Your task to perform on an android device: turn on javascript in the chrome app Image 0: 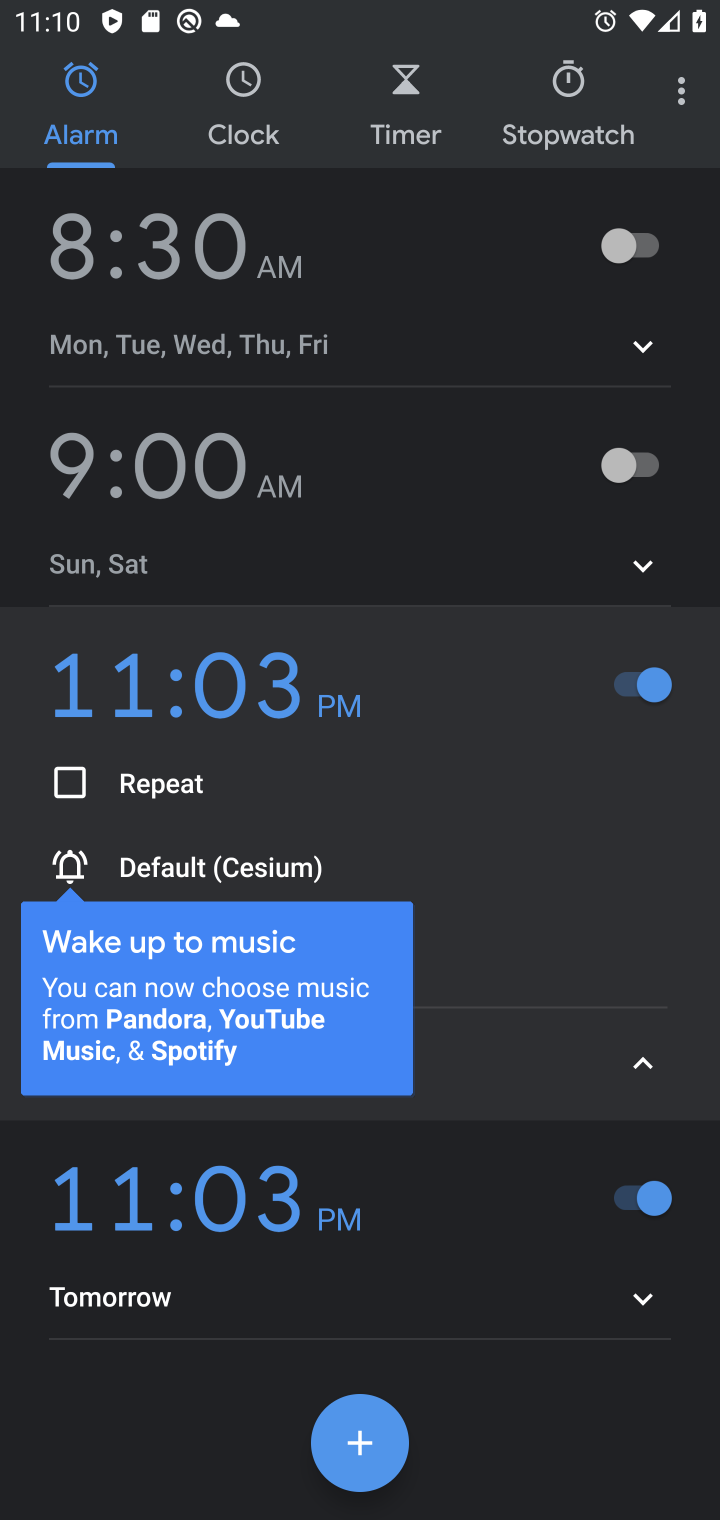
Step 0: press home button
Your task to perform on an android device: turn on javascript in the chrome app Image 1: 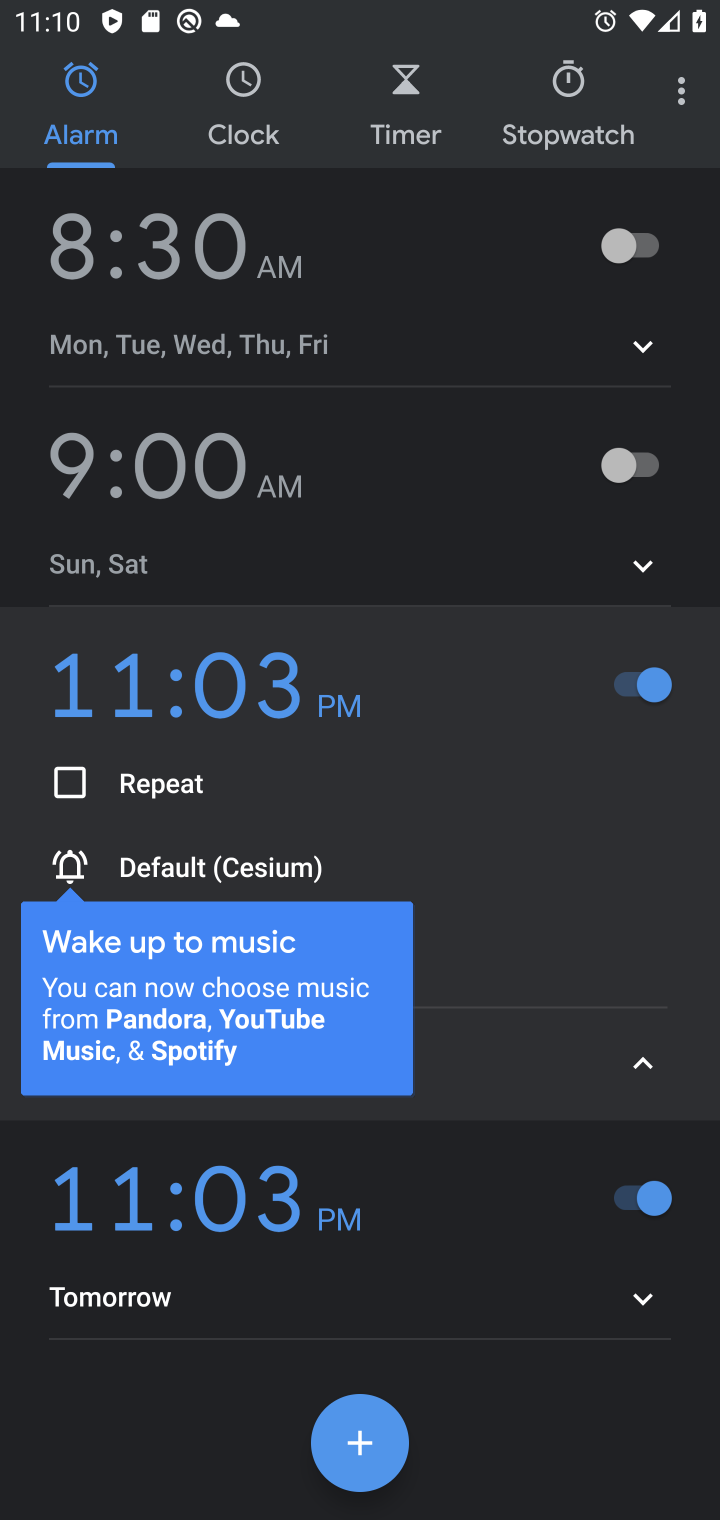
Step 1: drag from (402, 1167) to (112, 225)
Your task to perform on an android device: turn on javascript in the chrome app Image 2: 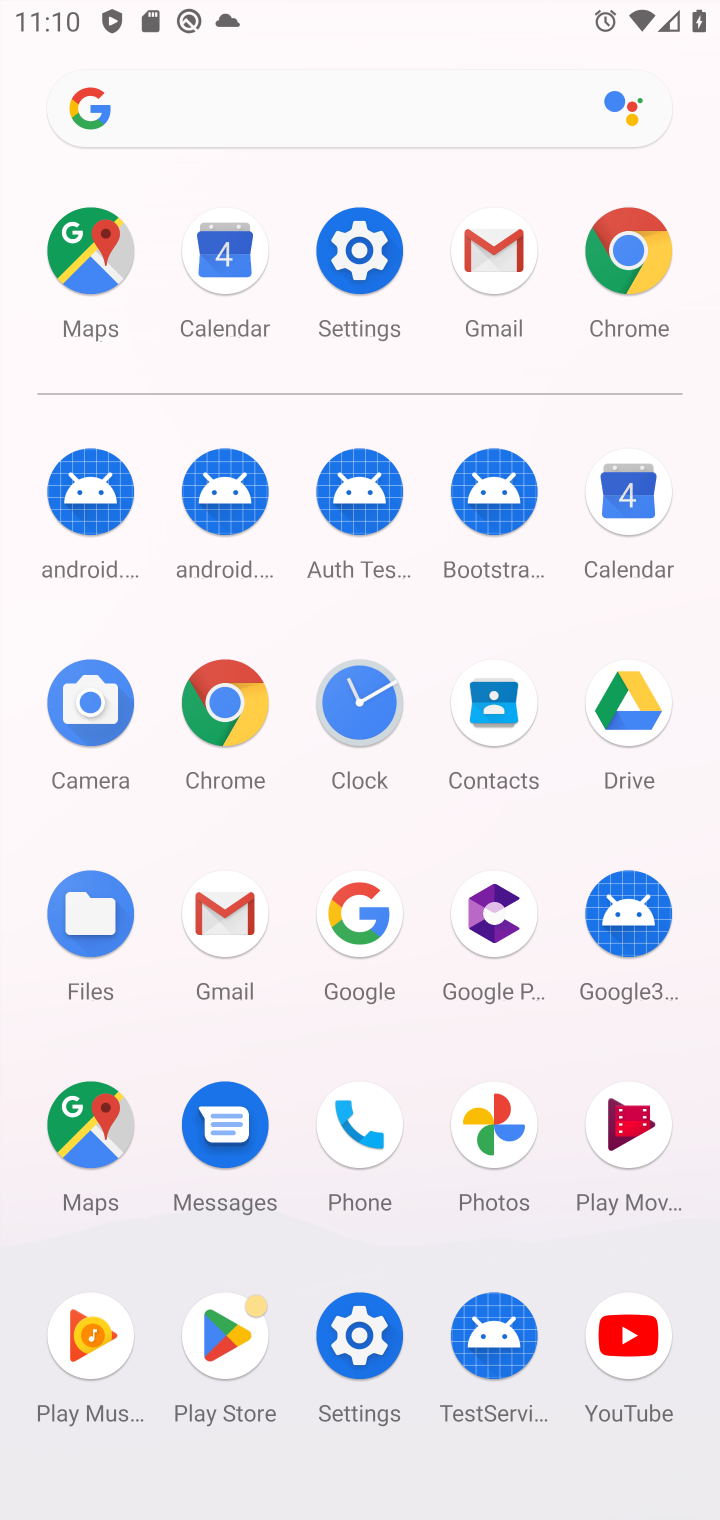
Step 2: click (652, 315)
Your task to perform on an android device: turn on javascript in the chrome app Image 3: 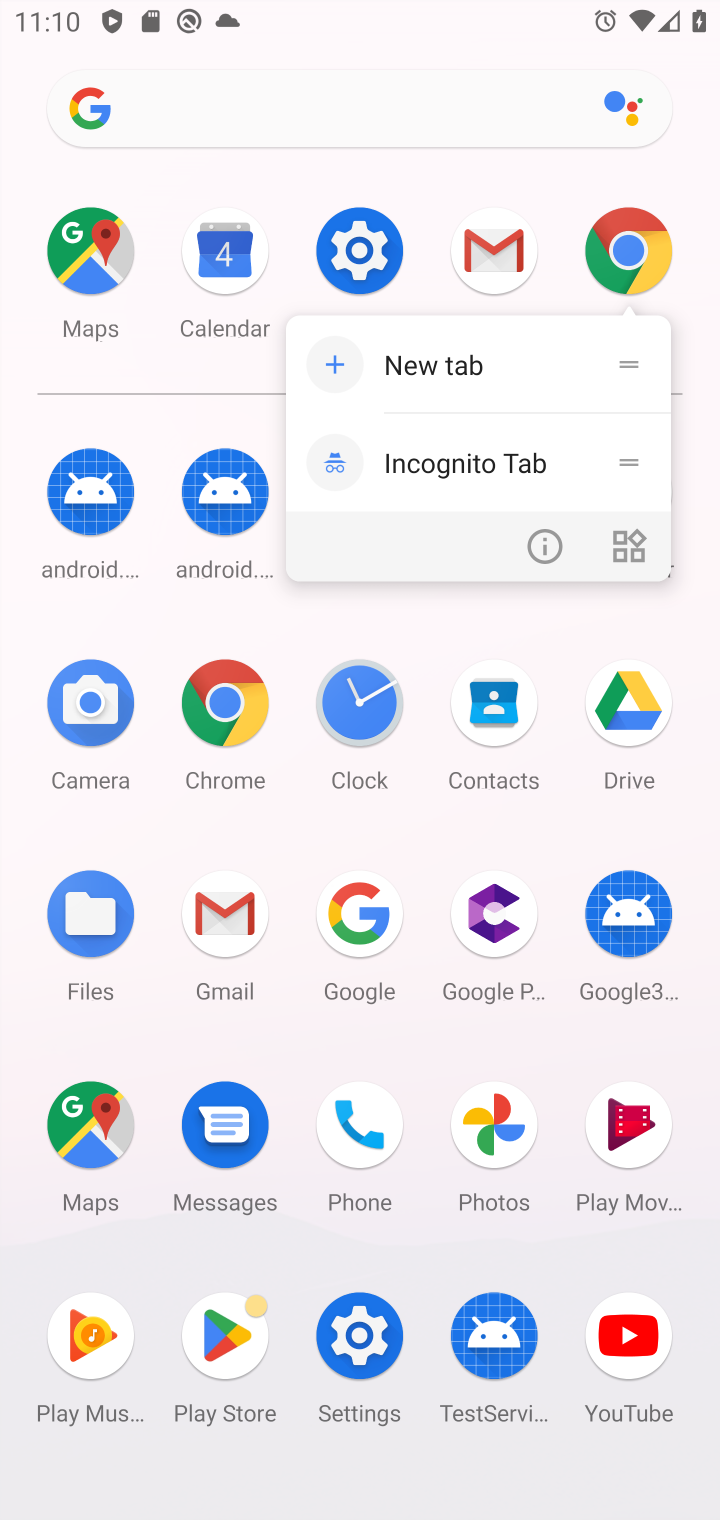
Step 3: click (40, 1036)
Your task to perform on an android device: turn on javascript in the chrome app Image 4: 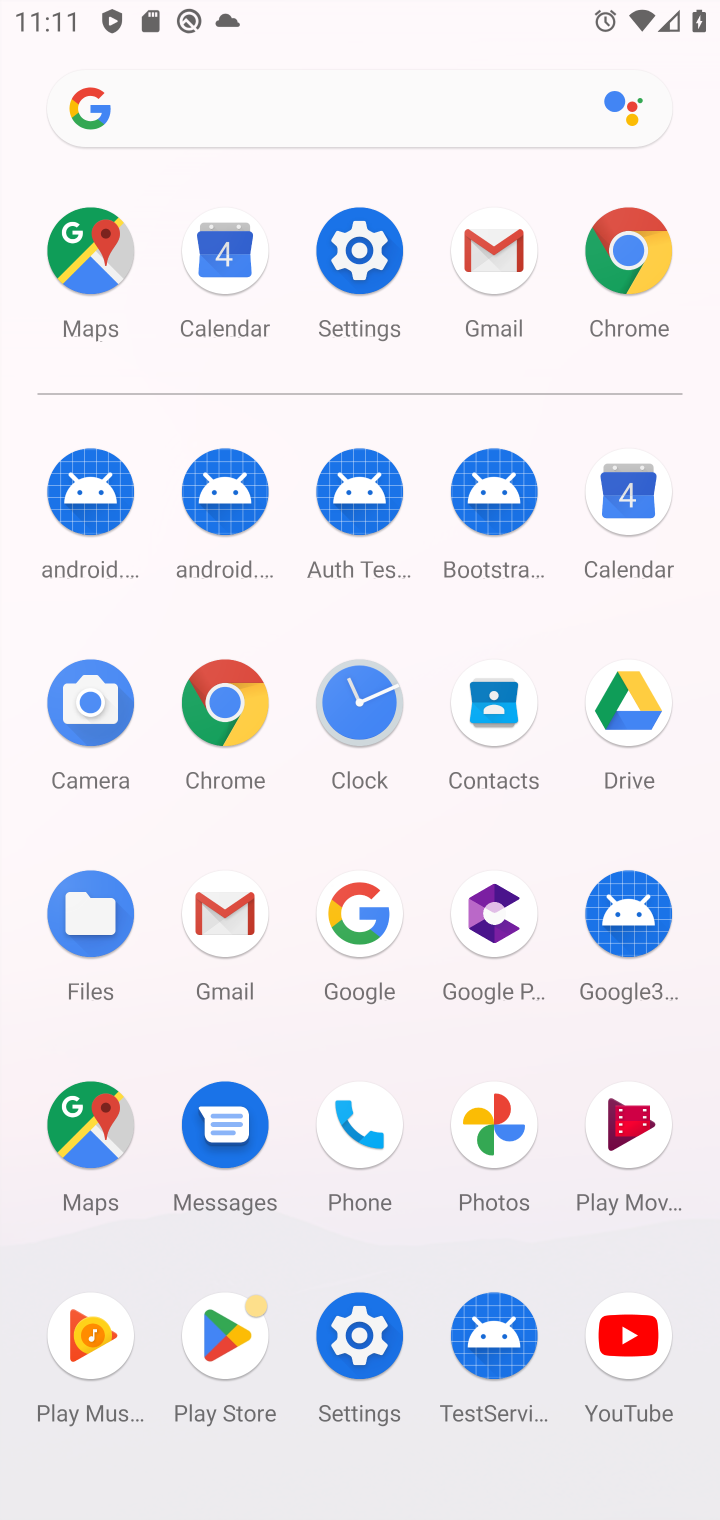
Step 4: click (582, 305)
Your task to perform on an android device: turn on javascript in the chrome app Image 5: 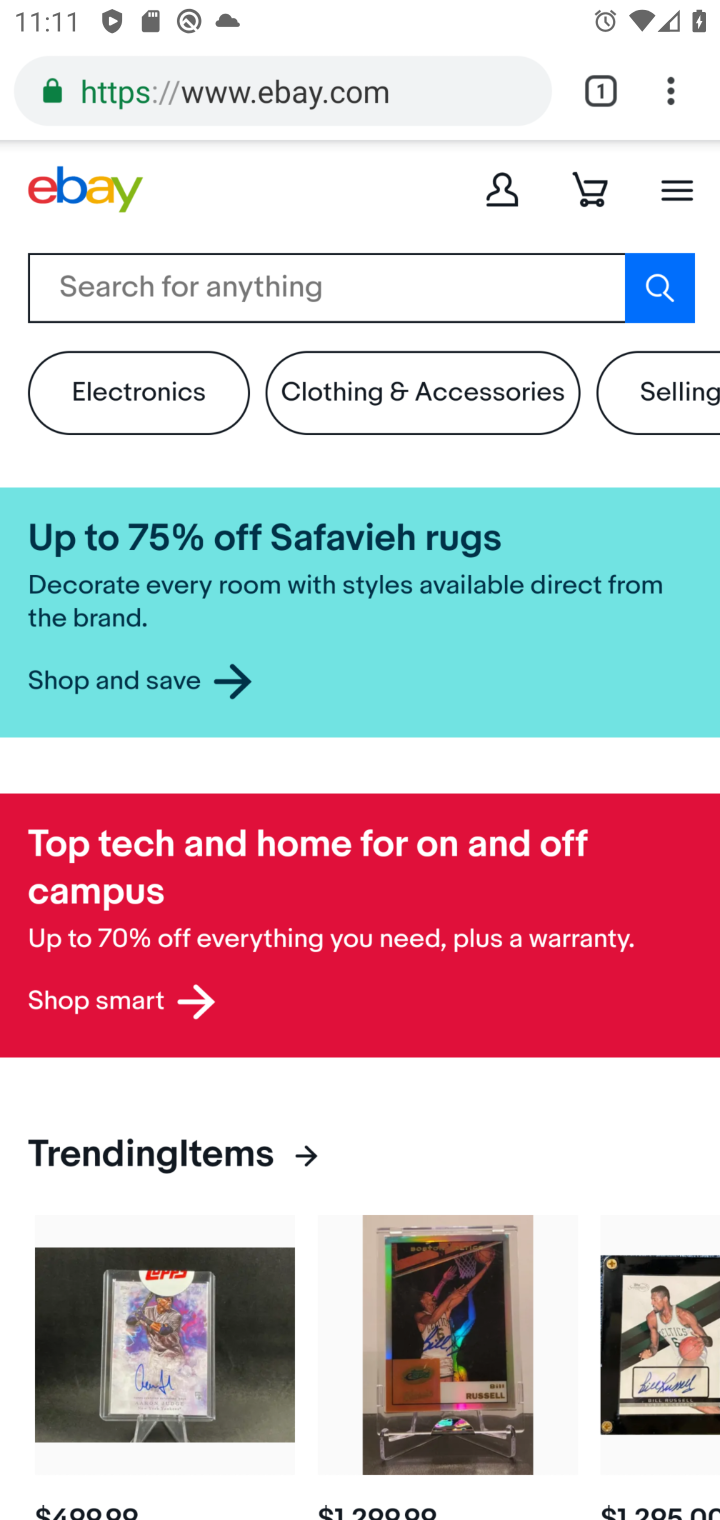
Step 5: drag from (670, 91) to (356, 1198)
Your task to perform on an android device: turn on javascript in the chrome app Image 6: 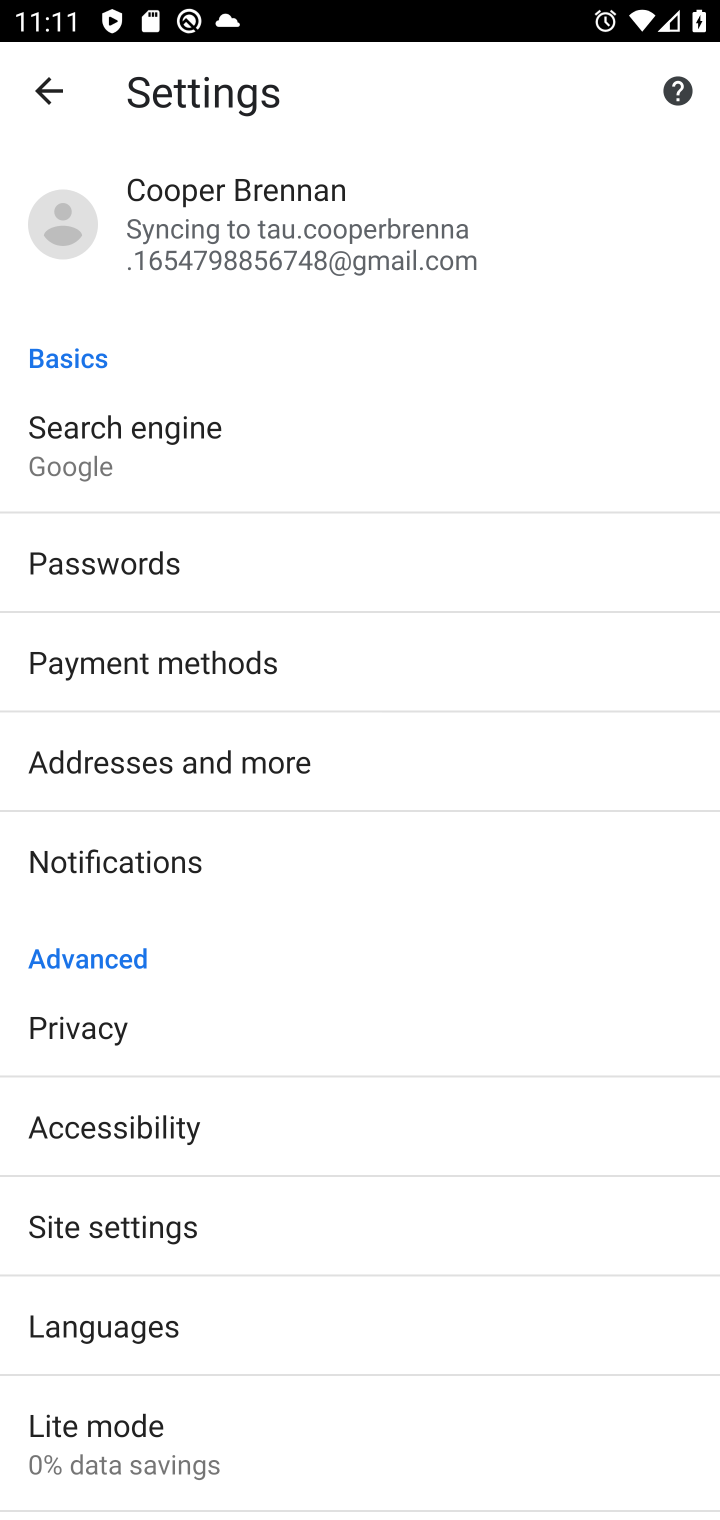
Step 6: click (173, 1235)
Your task to perform on an android device: turn on javascript in the chrome app Image 7: 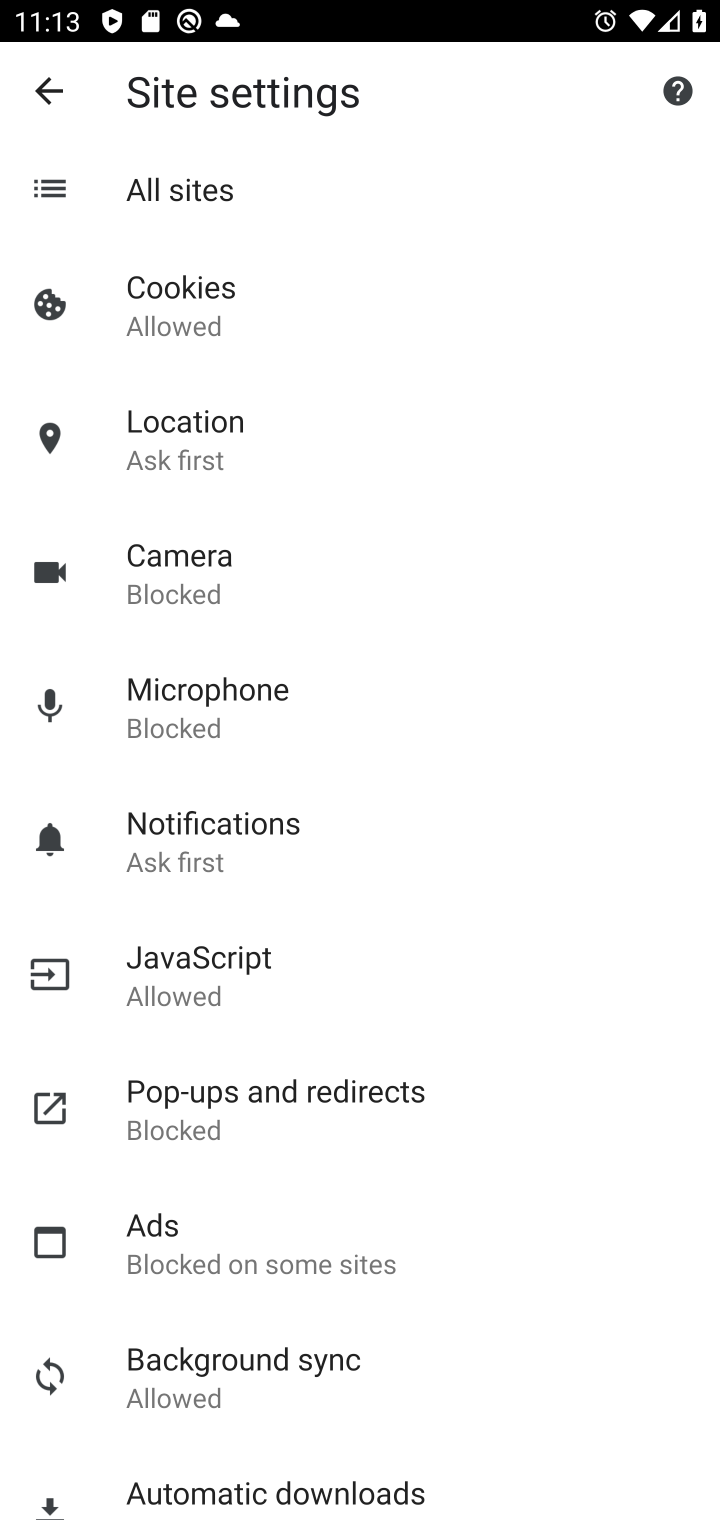
Step 7: click (183, 953)
Your task to perform on an android device: turn on javascript in the chrome app Image 8: 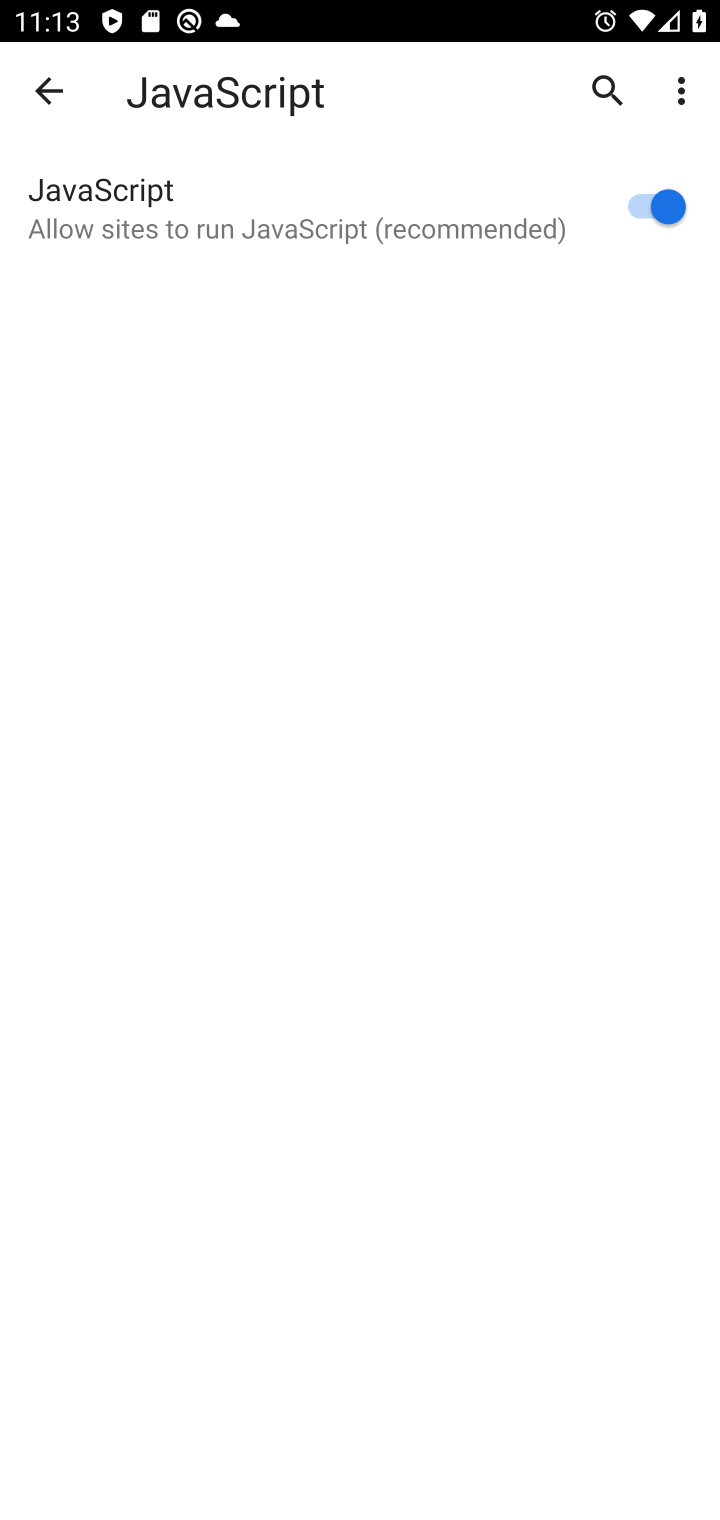
Step 8: task complete